Your task to perform on an android device: change the clock display to analog Image 0: 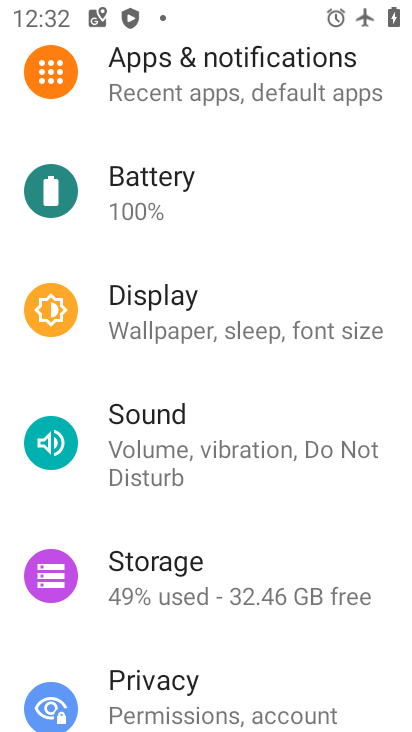
Step 0: press home button
Your task to perform on an android device: change the clock display to analog Image 1: 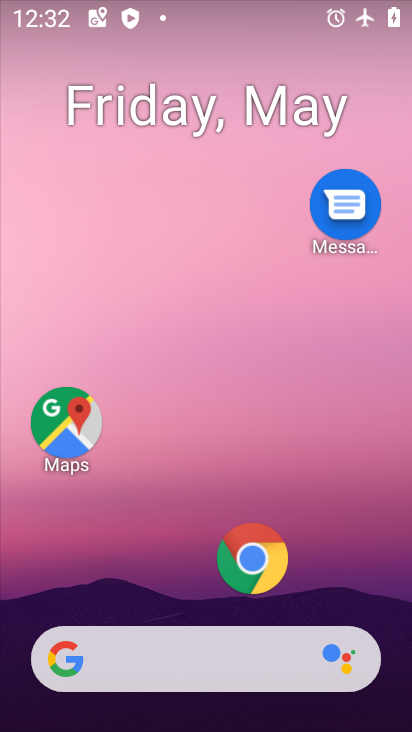
Step 1: drag from (275, 650) to (249, 102)
Your task to perform on an android device: change the clock display to analog Image 2: 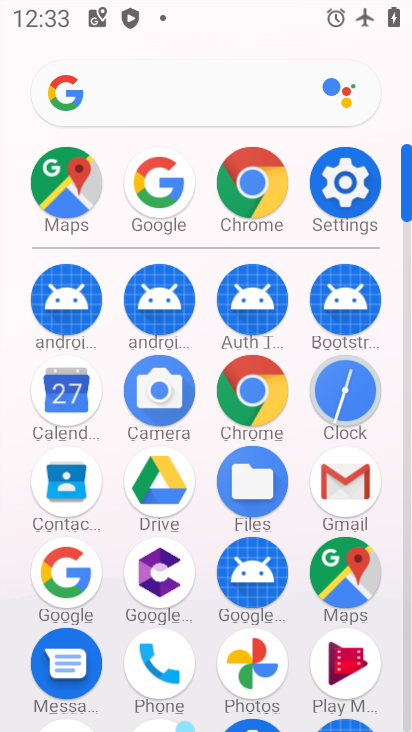
Step 2: click (346, 415)
Your task to perform on an android device: change the clock display to analog Image 3: 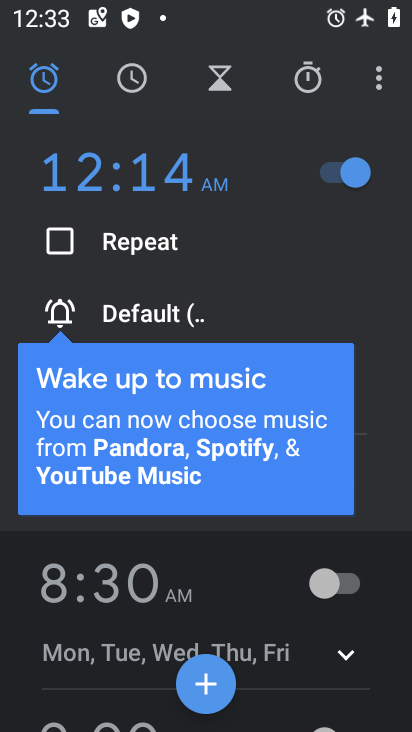
Step 3: click (381, 84)
Your task to perform on an android device: change the clock display to analog Image 4: 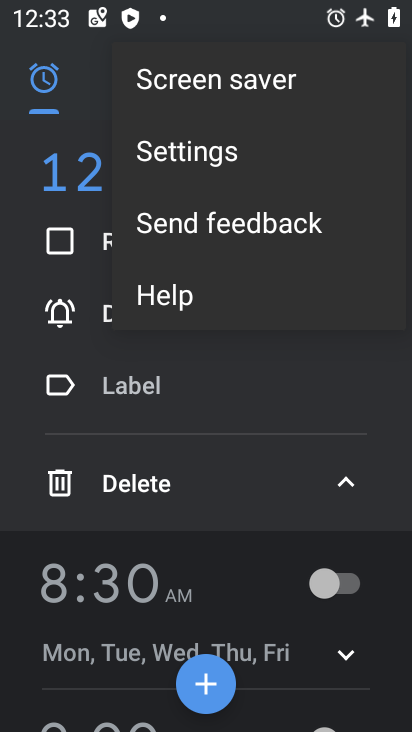
Step 4: click (213, 158)
Your task to perform on an android device: change the clock display to analog Image 5: 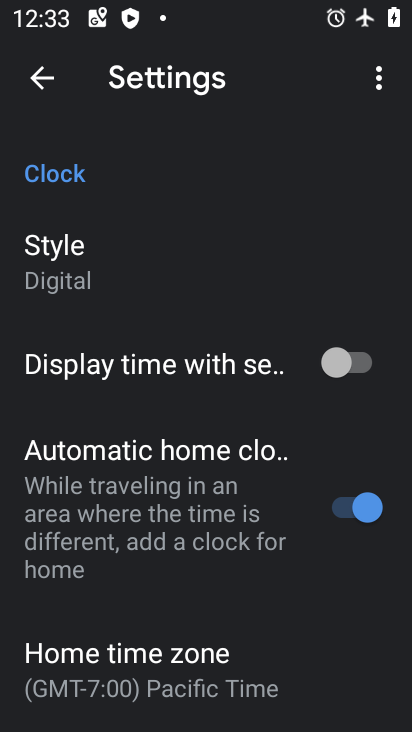
Step 5: click (157, 262)
Your task to perform on an android device: change the clock display to analog Image 6: 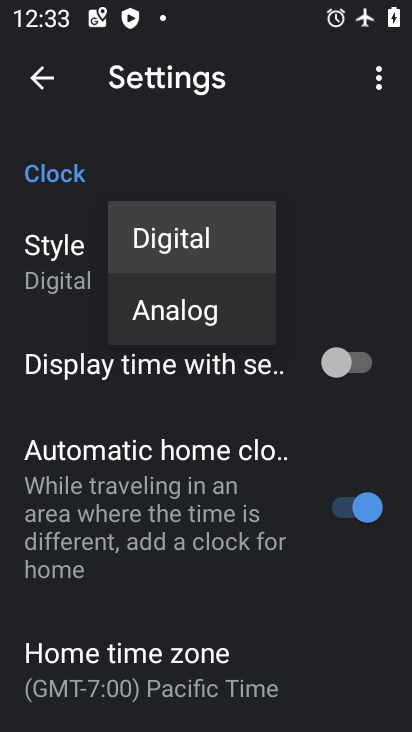
Step 6: click (177, 318)
Your task to perform on an android device: change the clock display to analog Image 7: 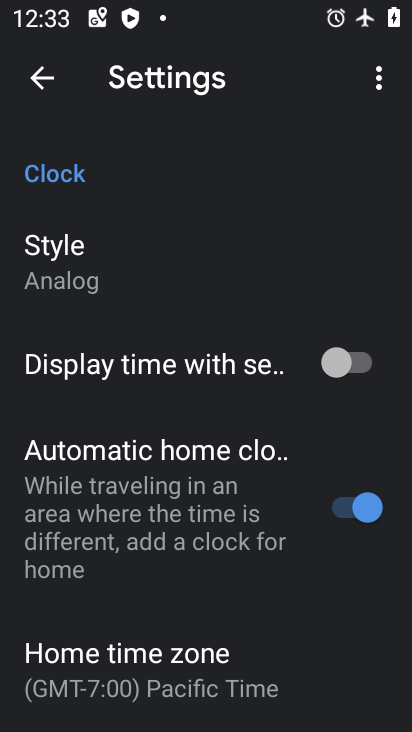
Step 7: task complete